Your task to perform on an android device: What's the weather? Image 0: 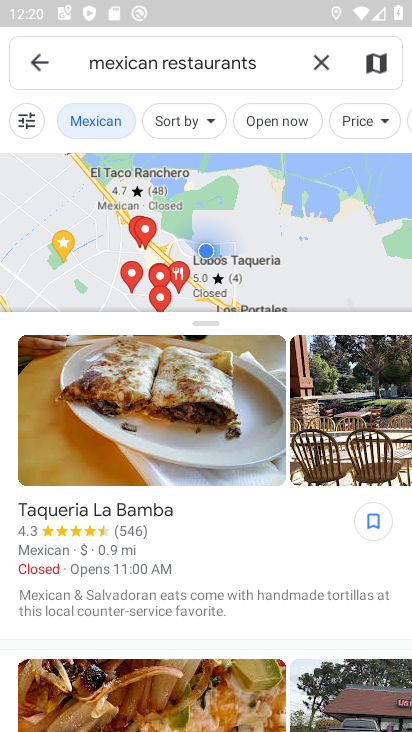
Step 0: press home button
Your task to perform on an android device: What's the weather? Image 1: 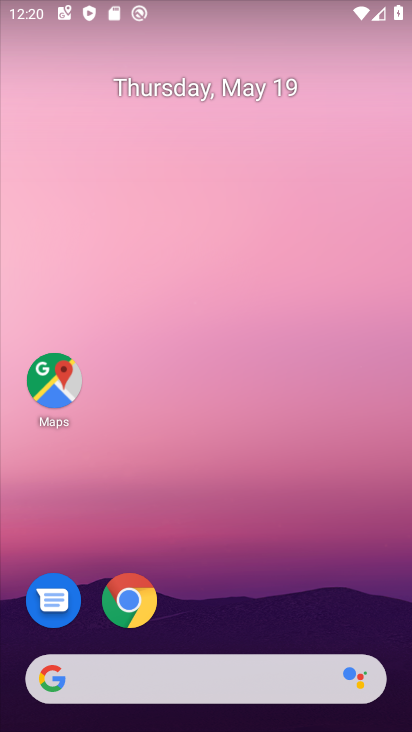
Step 1: drag from (279, 425) to (256, 87)
Your task to perform on an android device: What's the weather? Image 2: 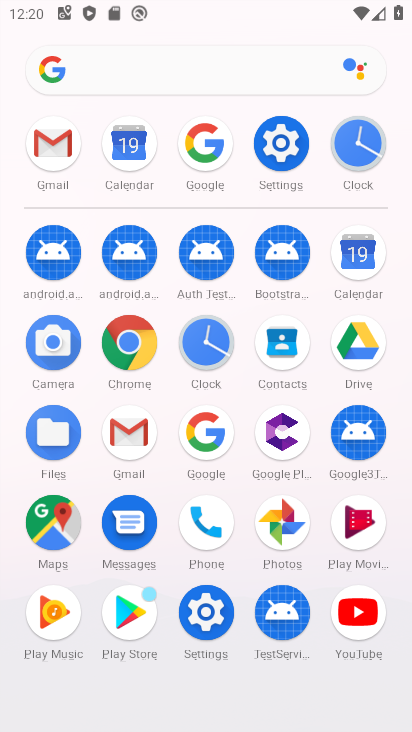
Step 2: click (216, 438)
Your task to perform on an android device: What's the weather? Image 3: 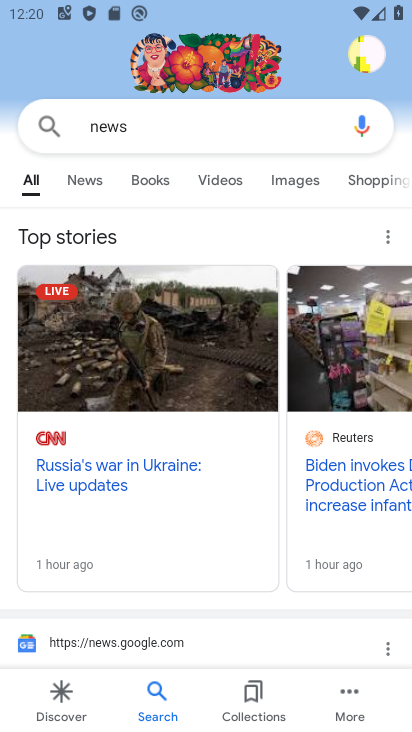
Step 3: click (154, 130)
Your task to perform on an android device: What's the weather? Image 4: 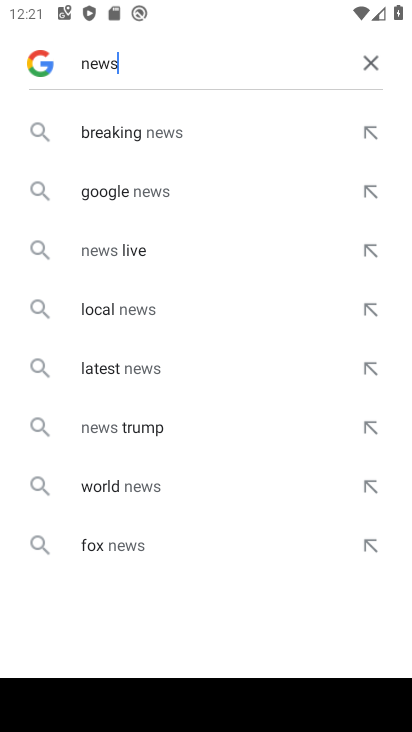
Step 4: click (366, 61)
Your task to perform on an android device: What's the weather? Image 5: 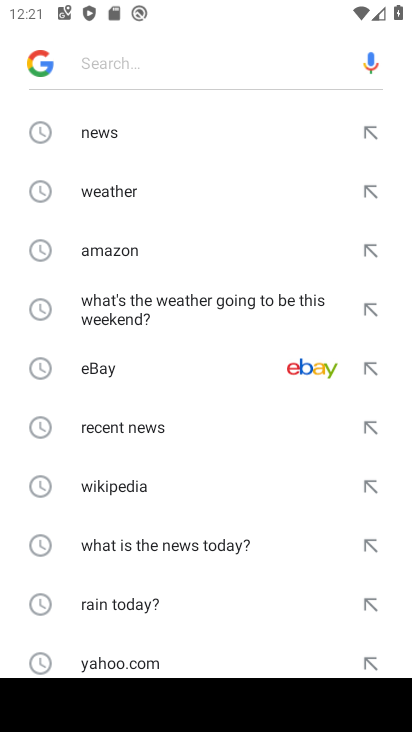
Step 5: click (199, 60)
Your task to perform on an android device: What's the weather? Image 6: 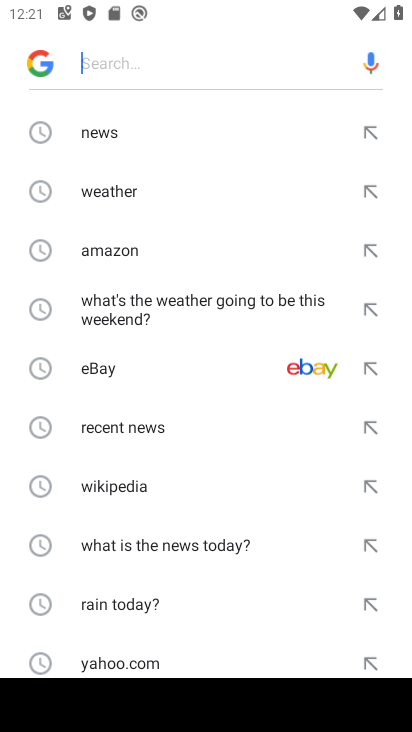
Step 6: click (137, 184)
Your task to perform on an android device: What's the weather? Image 7: 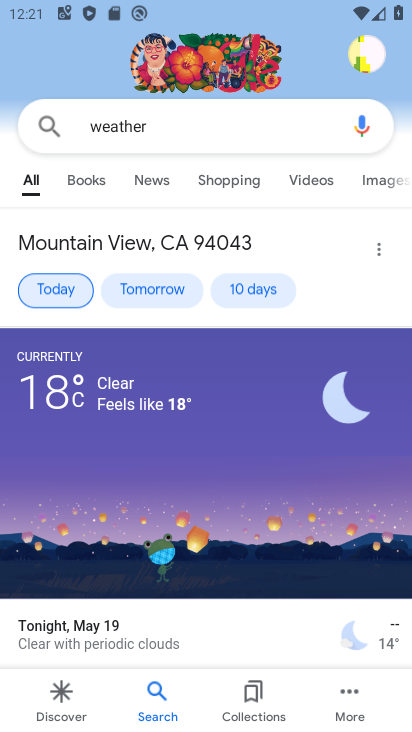
Step 7: task complete